Your task to perform on an android device: open chrome privacy settings Image 0: 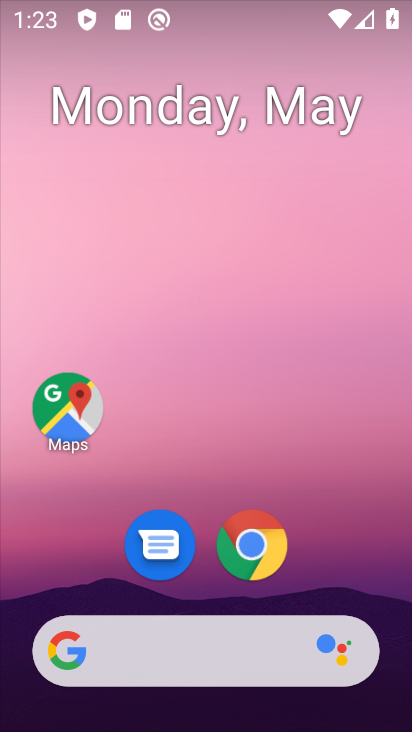
Step 0: drag from (287, 710) to (226, 17)
Your task to perform on an android device: open chrome privacy settings Image 1: 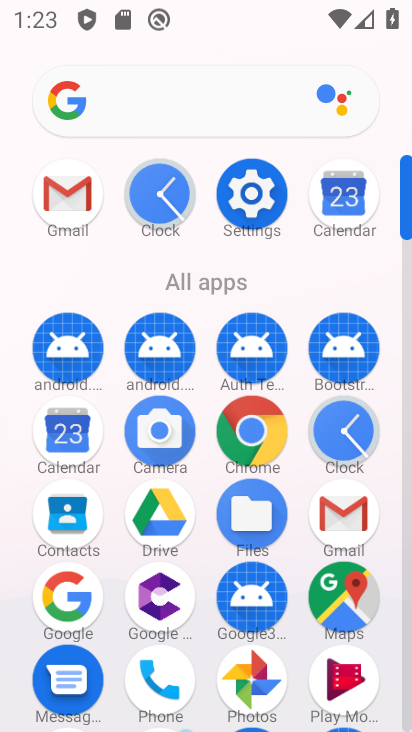
Step 1: click (261, 437)
Your task to perform on an android device: open chrome privacy settings Image 2: 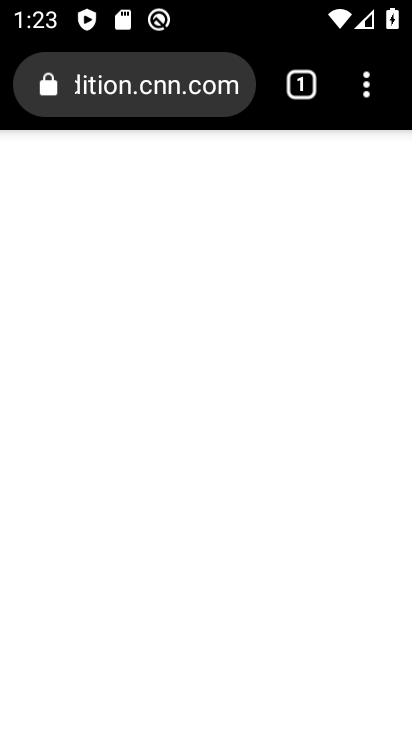
Step 2: click (371, 92)
Your task to perform on an android device: open chrome privacy settings Image 3: 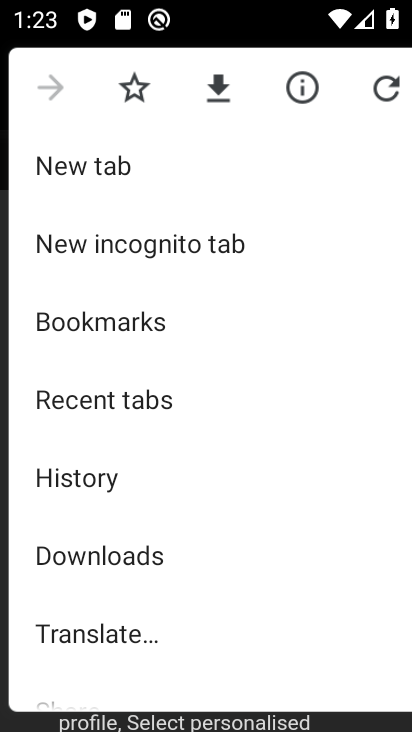
Step 3: drag from (135, 634) to (142, 162)
Your task to perform on an android device: open chrome privacy settings Image 4: 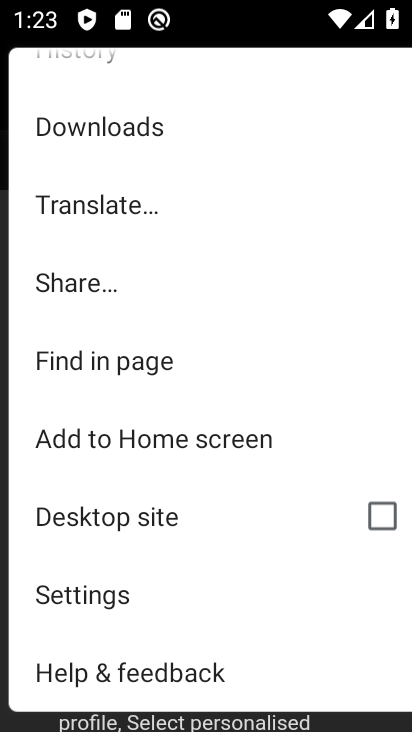
Step 4: click (123, 593)
Your task to perform on an android device: open chrome privacy settings Image 5: 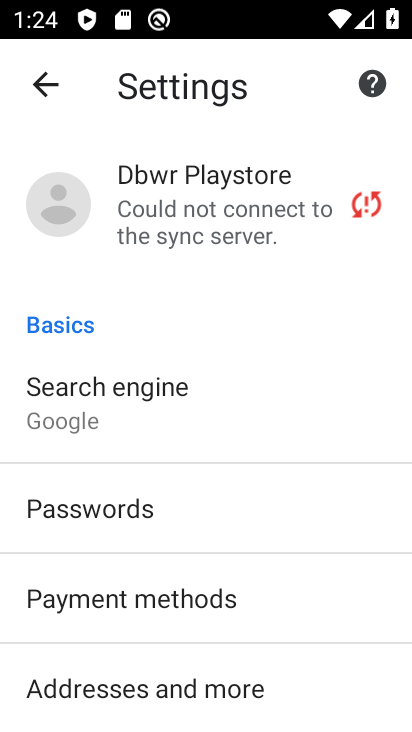
Step 5: drag from (247, 651) to (254, 105)
Your task to perform on an android device: open chrome privacy settings Image 6: 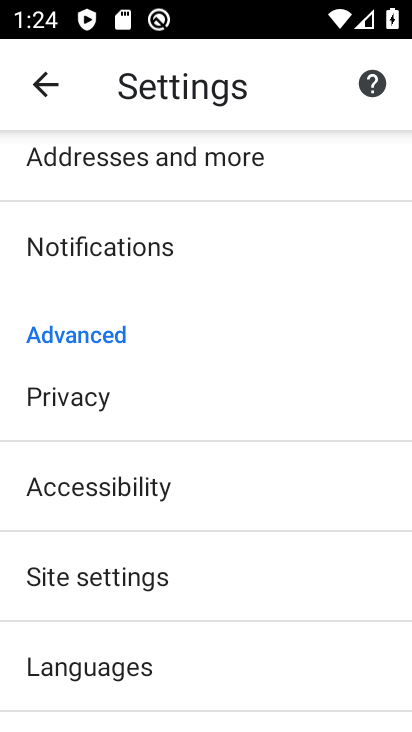
Step 6: click (100, 390)
Your task to perform on an android device: open chrome privacy settings Image 7: 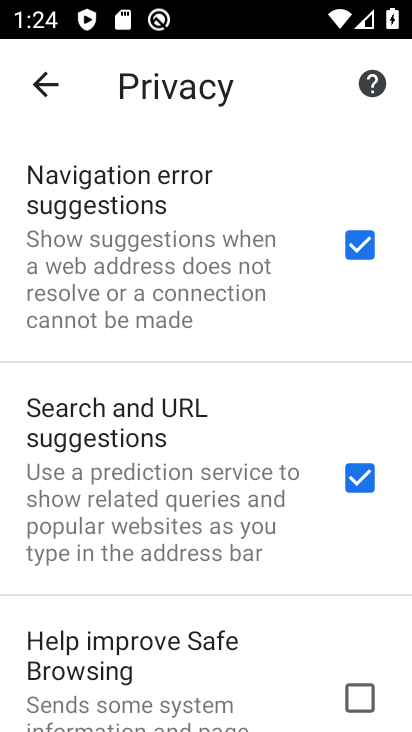
Step 7: task complete